Your task to perform on an android device: open sync settings in chrome Image 0: 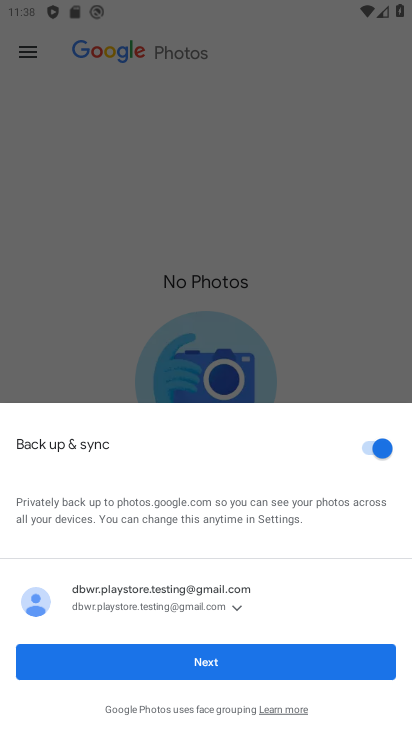
Step 0: press home button
Your task to perform on an android device: open sync settings in chrome Image 1: 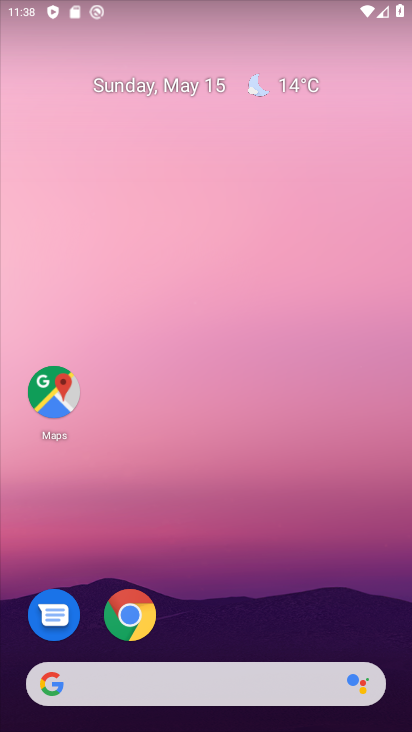
Step 1: drag from (321, 570) to (350, 84)
Your task to perform on an android device: open sync settings in chrome Image 2: 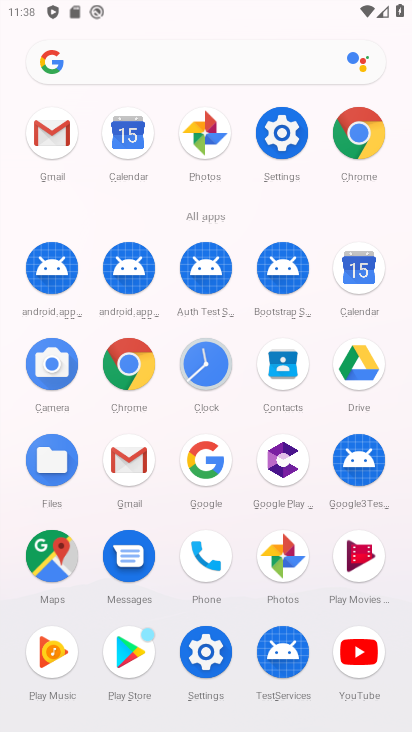
Step 2: click (383, 137)
Your task to perform on an android device: open sync settings in chrome Image 3: 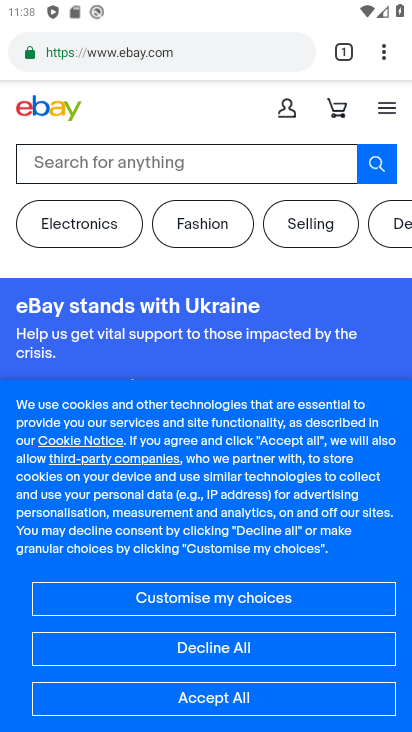
Step 3: drag from (388, 44) to (207, 646)
Your task to perform on an android device: open sync settings in chrome Image 4: 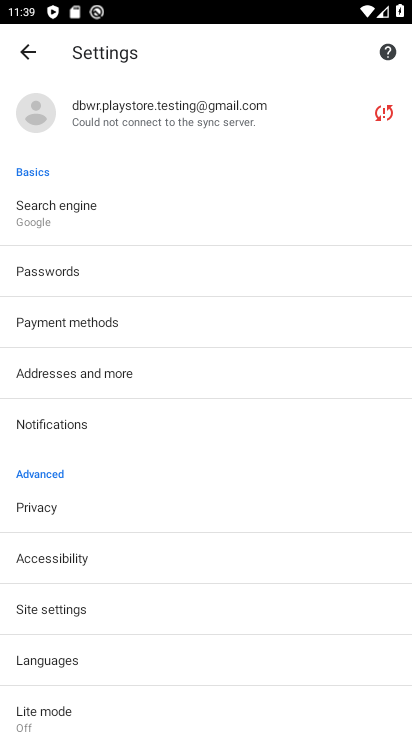
Step 4: drag from (160, 623) to (217, 291)
Your task to perform on an android device: open sync settings in chrome Image 5: 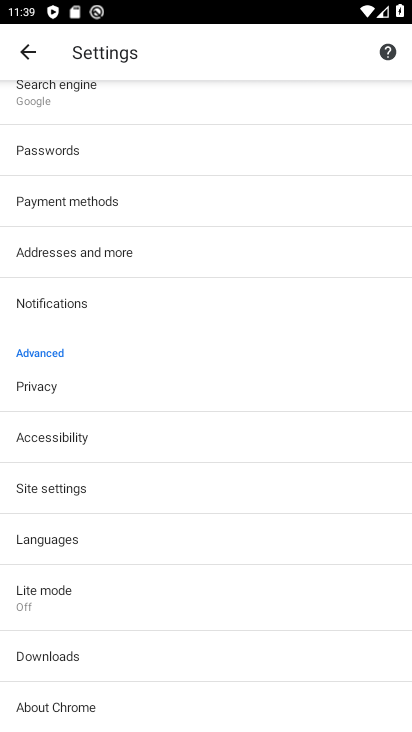
Step 5: click (102, 482)
Your task to perform on an android device: open sync settings in chrome Image 6: 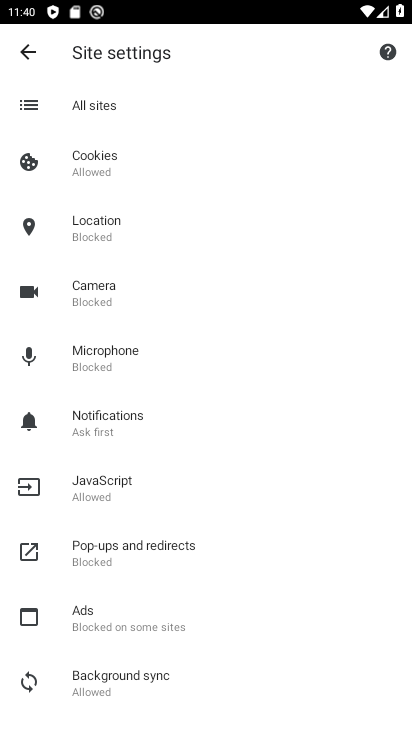
Step 6: drag from (196, 594) to (272, 255)
Your task to perform on an android device: open sync settings in chrome Image 7: 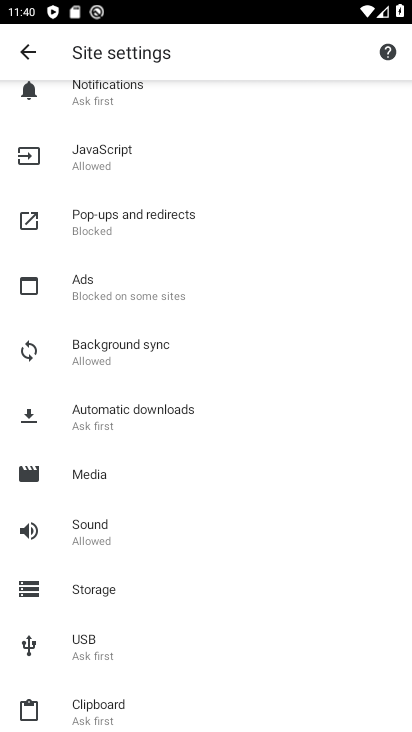
Step 7: click (151, 356)
Your task to perform on an android device: open sync settings in chrome Image 8: 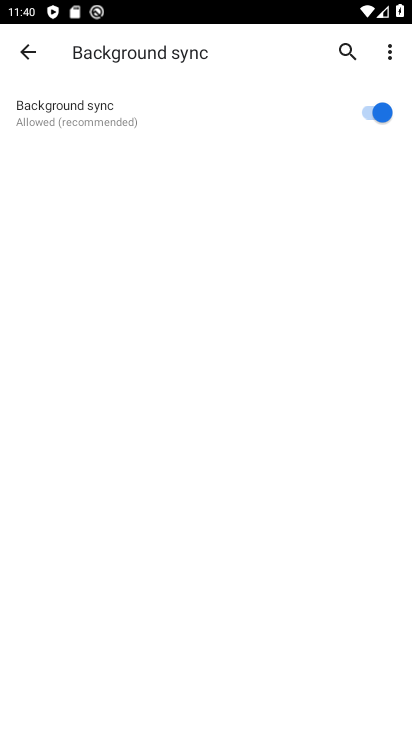
Step 8: task complete